Your task to perform on an android device: delete location history Image 0: 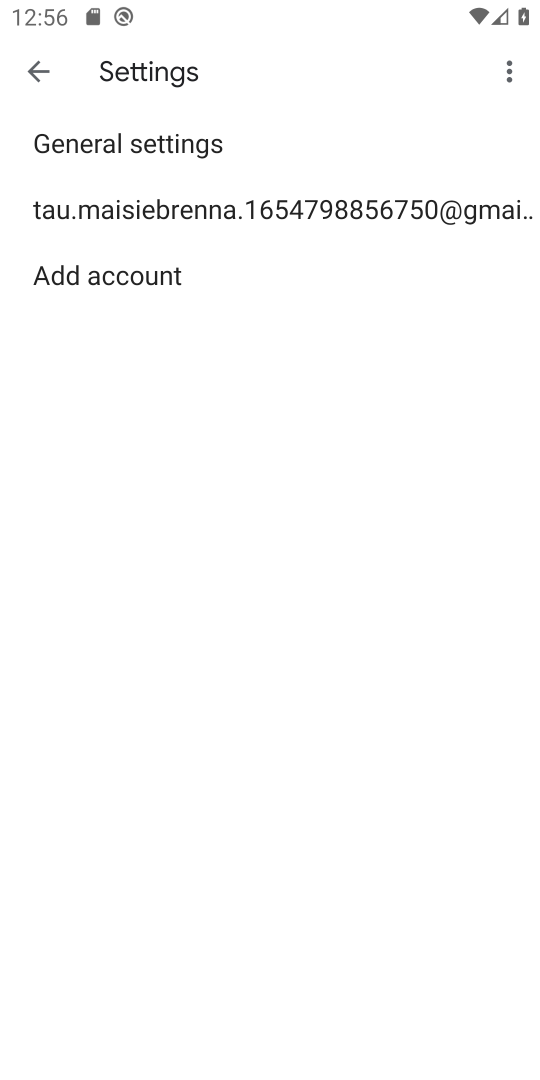
Step 0: press home button
Your task to perform on an android device: delete location history Image 1: 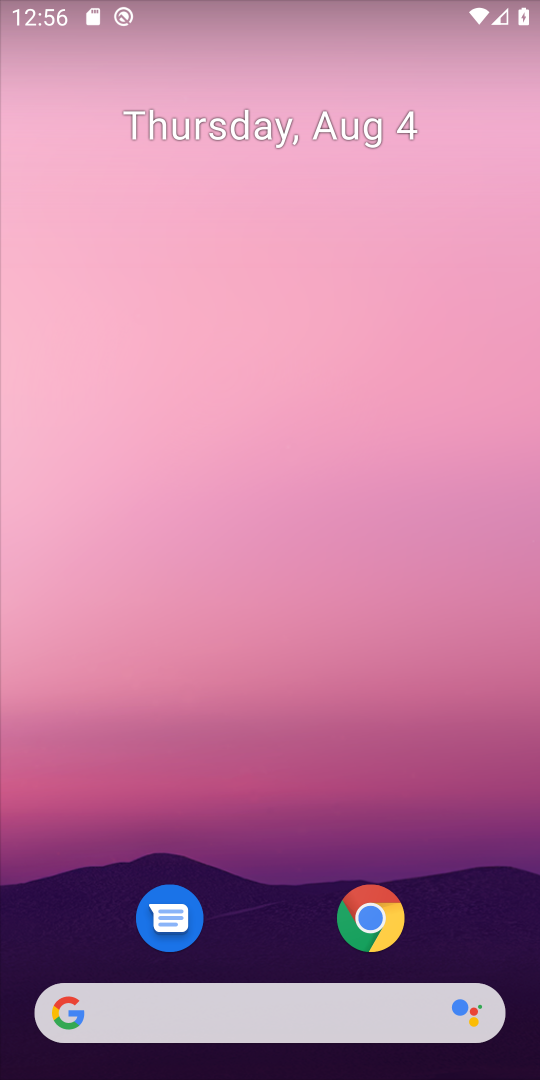
Step 1: drag from (275, 902) to (273, 296)
Your task to perform on an android device: delete location history Image 2: 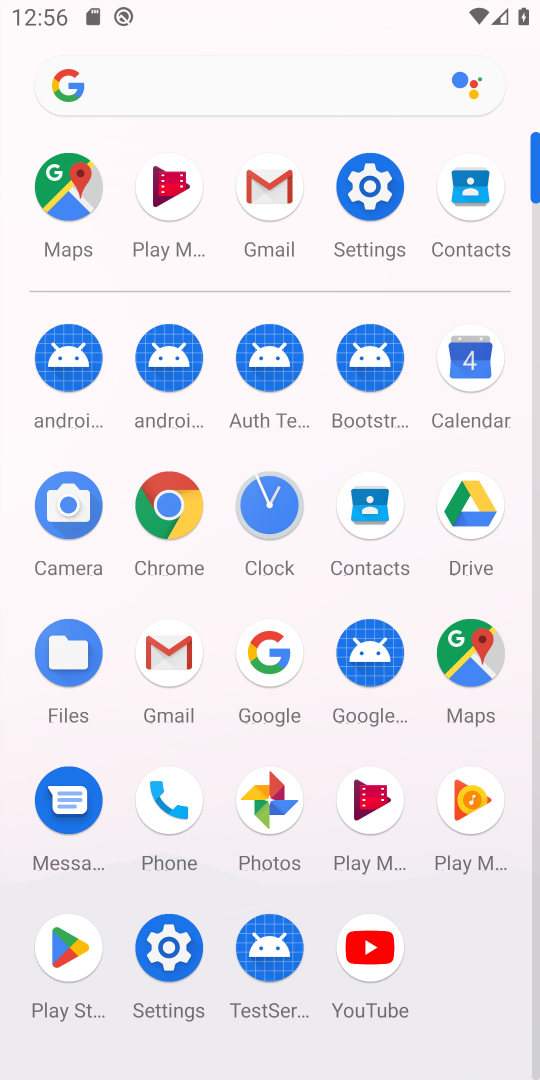
Step 2: click (85, 208)
Your task to perform on an android device: delete location history Image 3: 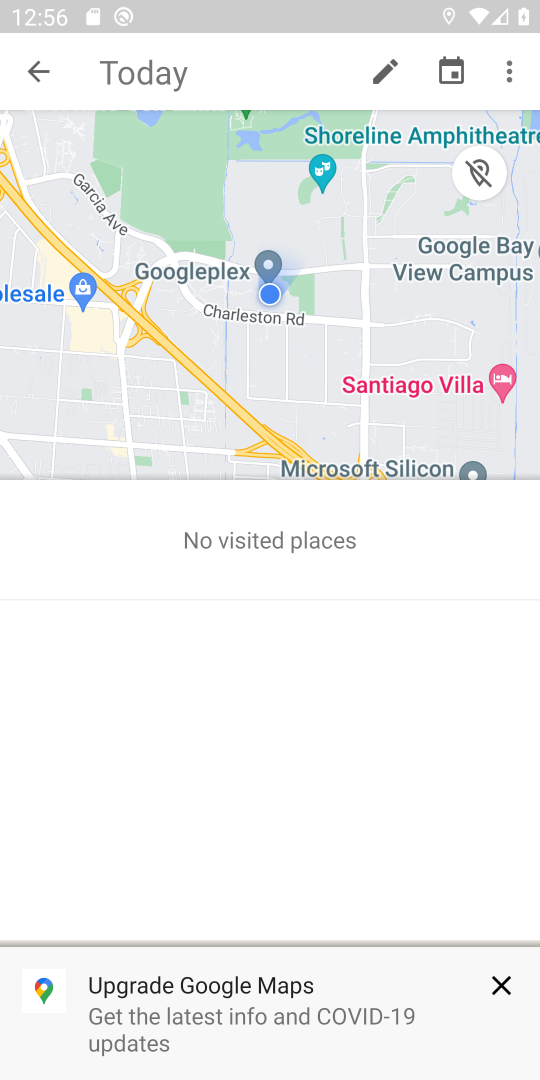
Step 3: click (509, 64)
Your task to perform on an android device: delete location history Image 4: 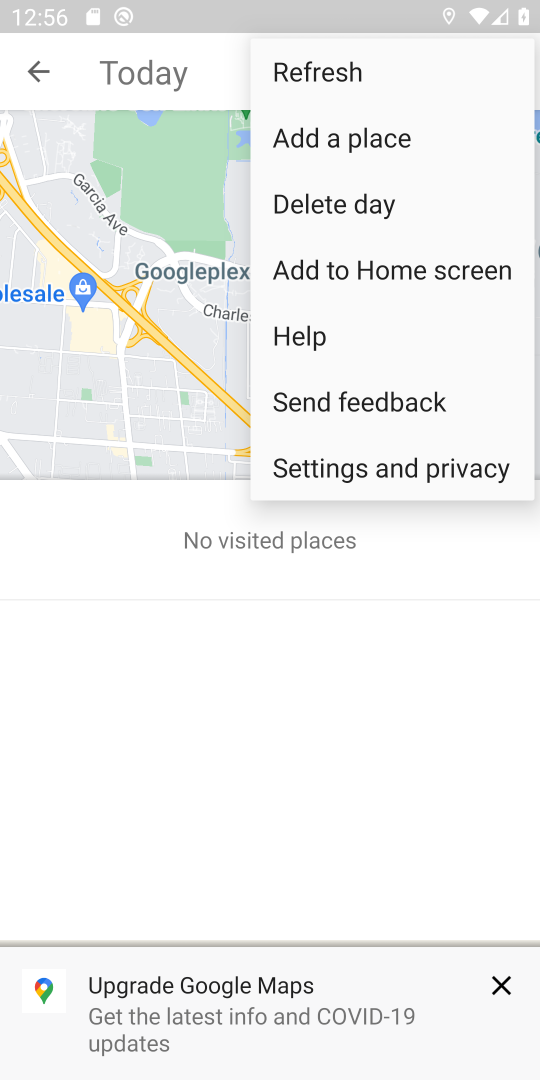
Step 4: click (353, 455)
Your task to perform on an android device: delete location history Image 5: 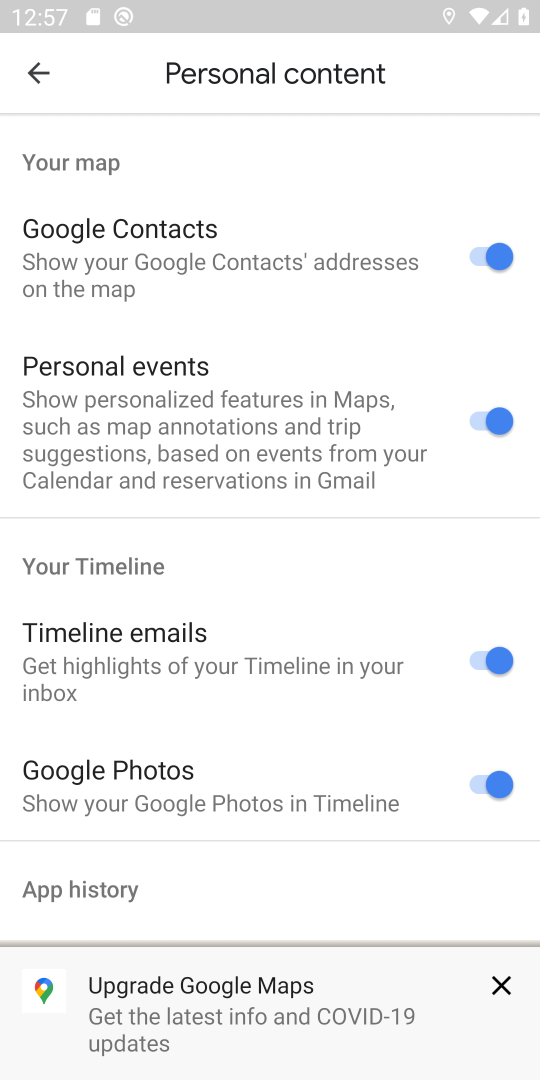
Step 5: drag from (234, 886) to (251, 326)
Your task to perform on an android device: delete location history Image 6: 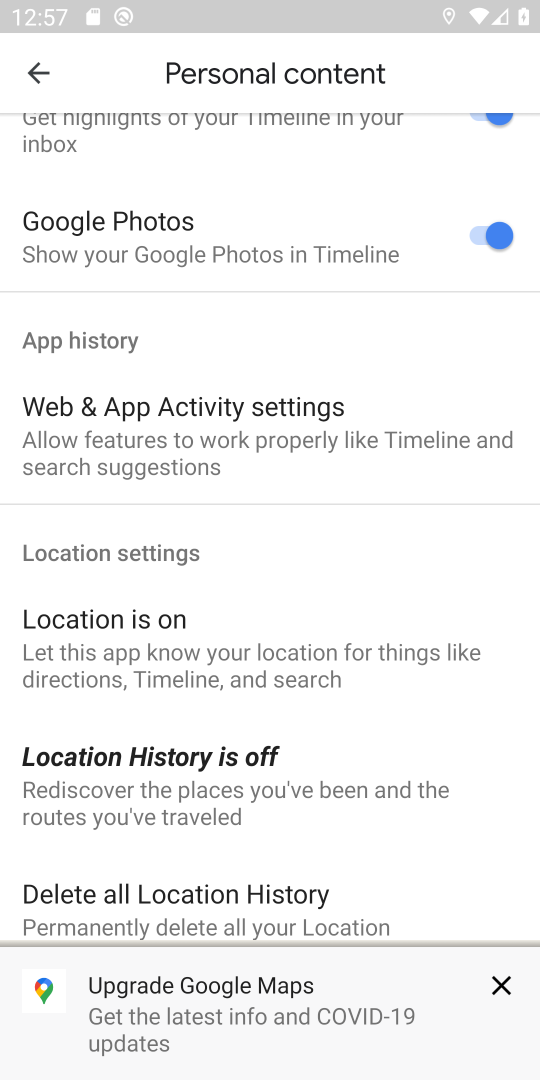
Step 6: click (252, 881)
Your task to perform on an android device: delete location history Image 7: 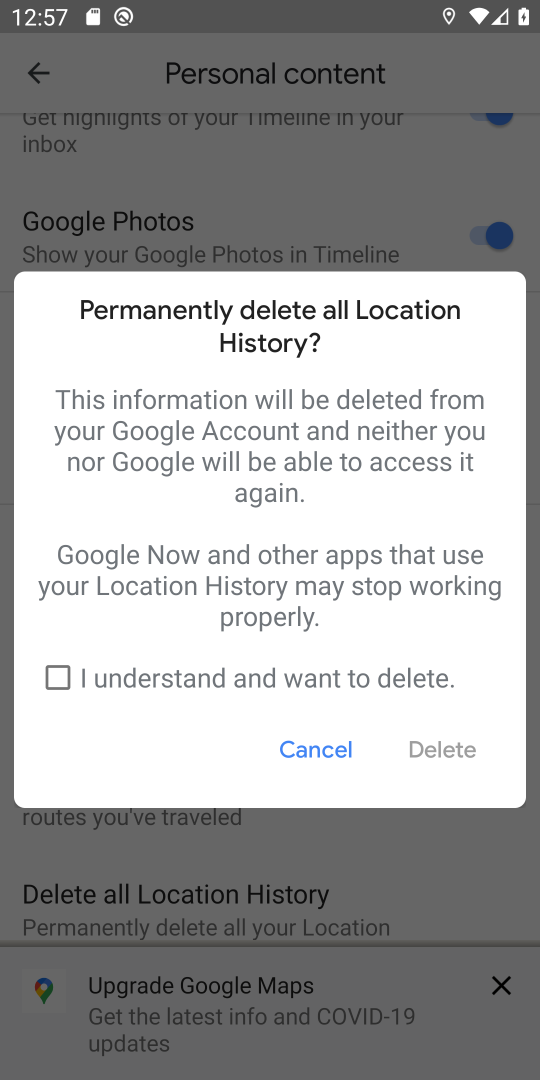
Step 7: click (217, 661)
Your task to perform on an android device: delete location history Image 8: 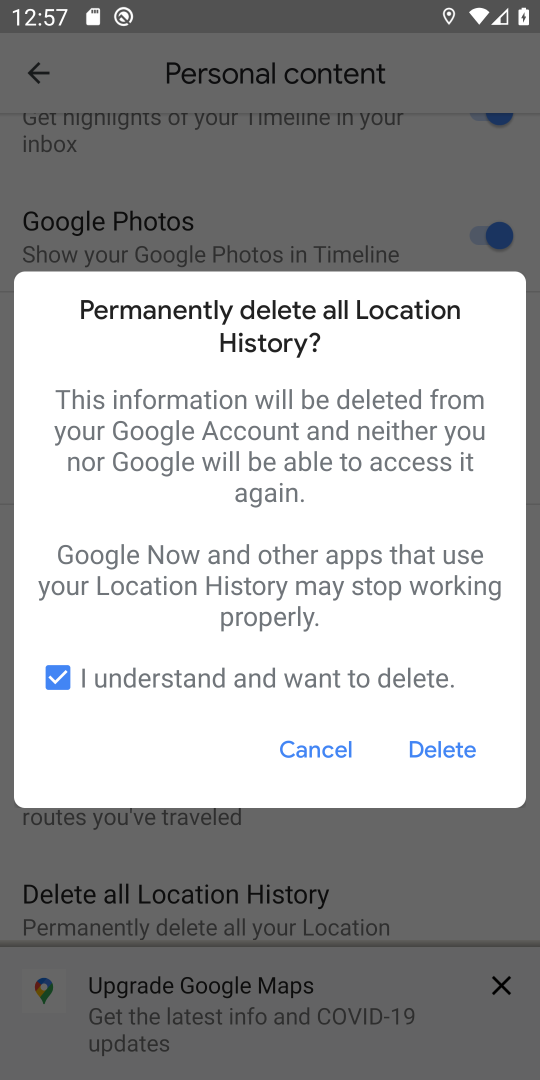
Step 8: click (465, 758)
Your task to perform on an android device: delete location history Image 9: 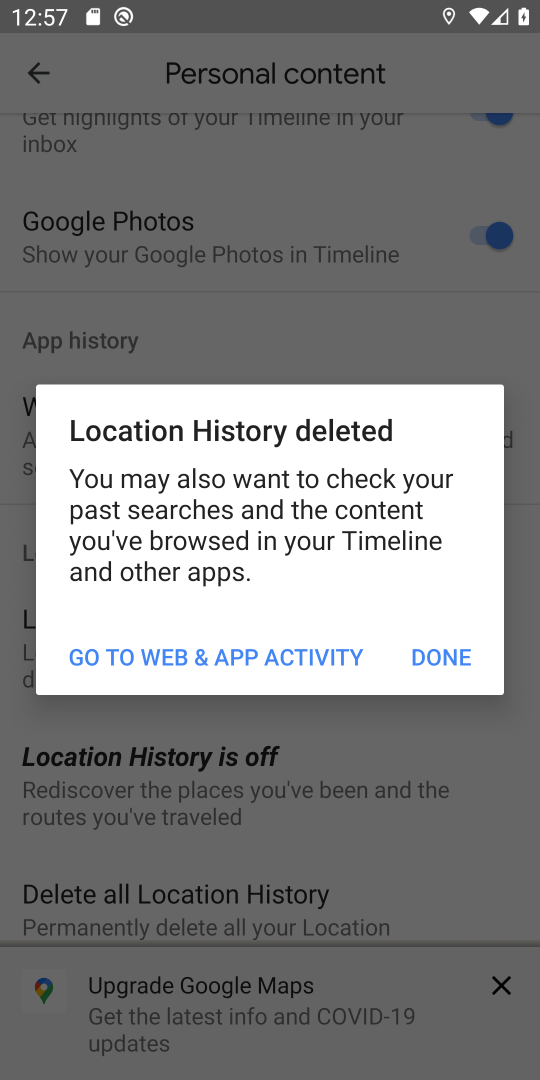
Step 9: click (442, 641)
Your task to perform on an android device: delete location history Image 10: 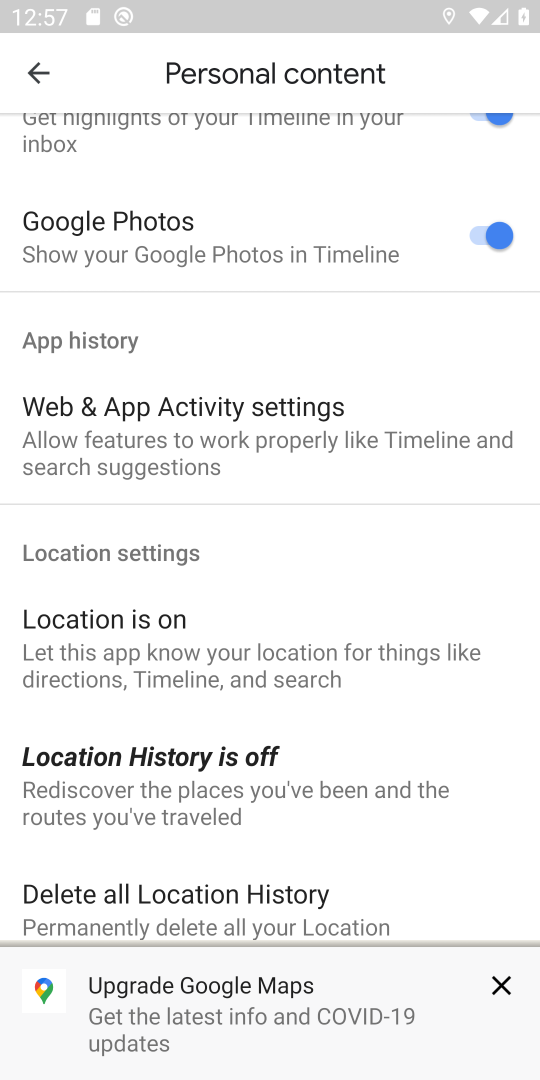
Step 10: task complete